Your task to perform on an android device: choose inbox layout in the gmail app Image 0: 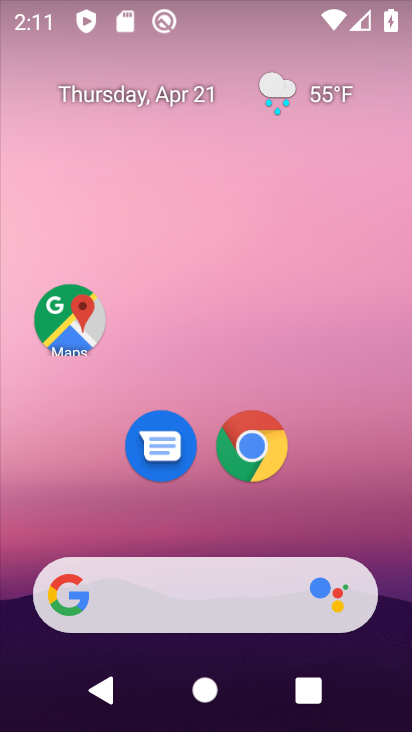
Step 0: drag from (212, 725) to (204, 123)
Your task to perform on an android device: choose inbox layout in the gmail app Image 1: 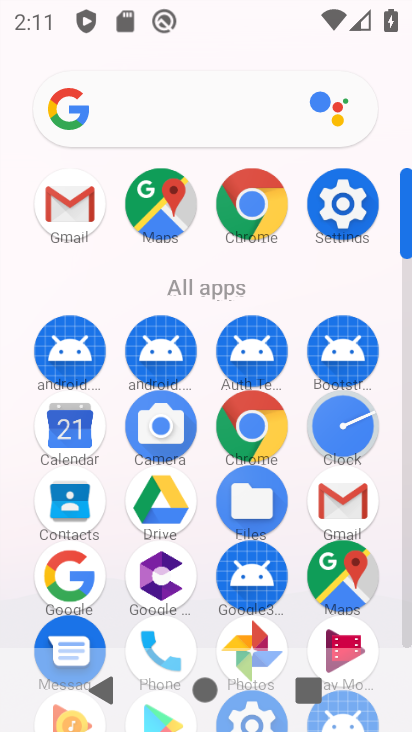
Step 1: click (64, 201)
Your task to perform on an android device: choose inbox layout in the gmail app Image 2: 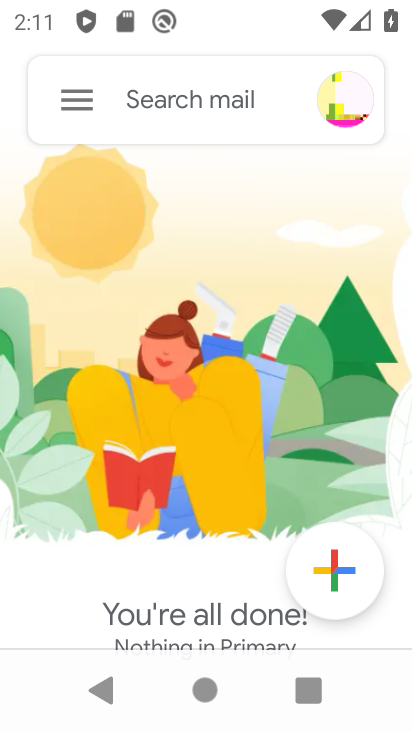
Step 2: click (83, 91)
Your task to perform on an android device: choose inbox layout in the gmail app Image 3: 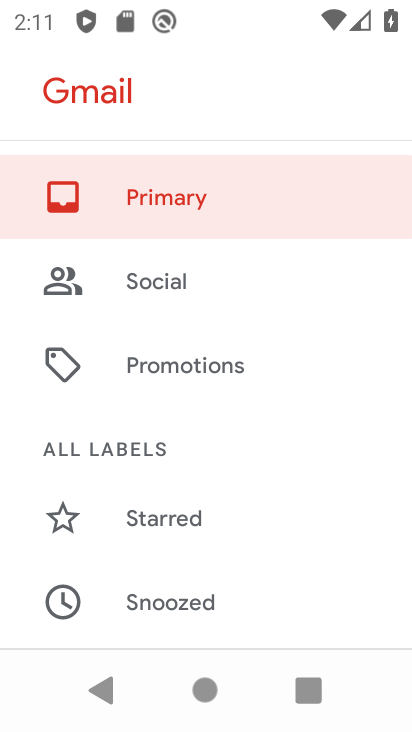
Step 3: drag from (194, 593) to (173, 303)
Your task to perform on an android device: choose inbox layout in the gmail app Image 4: 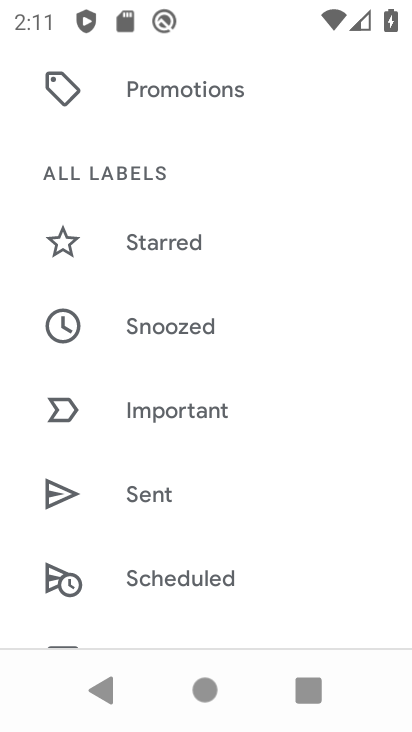
Step 4: drag from (223, 615) to (196, 229)
Your task to perform on an android device: choose inbox layout in the gmail app Image 5: 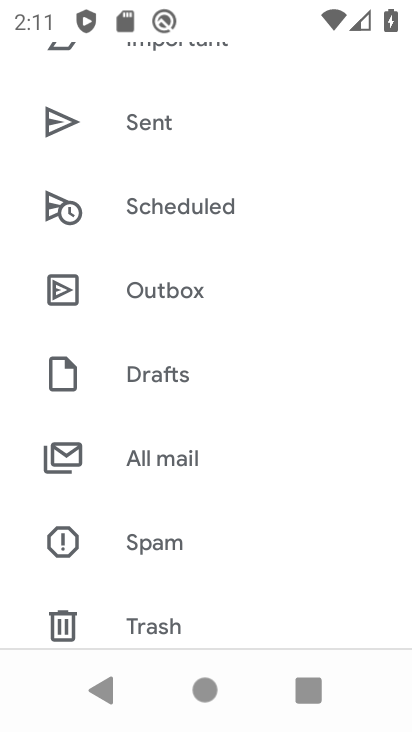
Step 5: drag from (201, 601) to (201, 215)
Your task to perform on an android device: choose inbox layout in the gmail app Image 6: 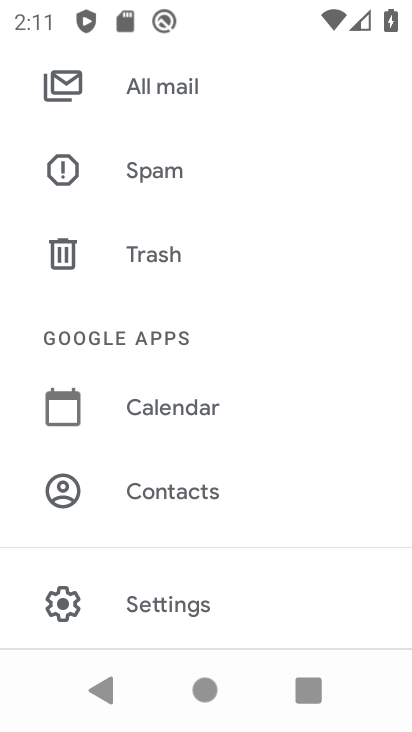
Step 6: click (180, 603)
Your task to perform on an android device: choose inbox layout in the gmail app Image 7: 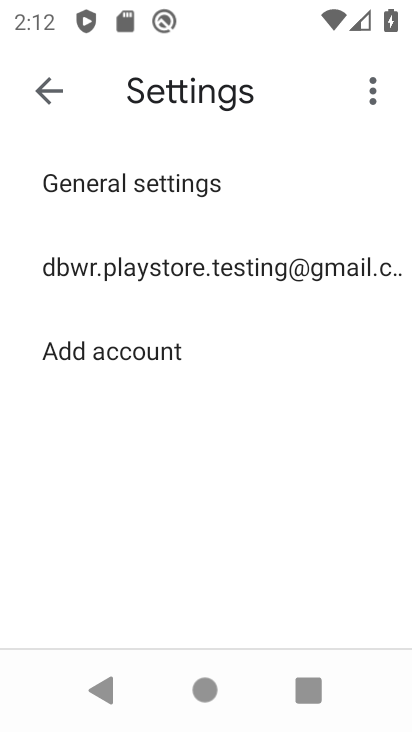
Step 7: click (184, 265)
Your task to perform on an android device: choose inbox layout in the gmail app Image 8: 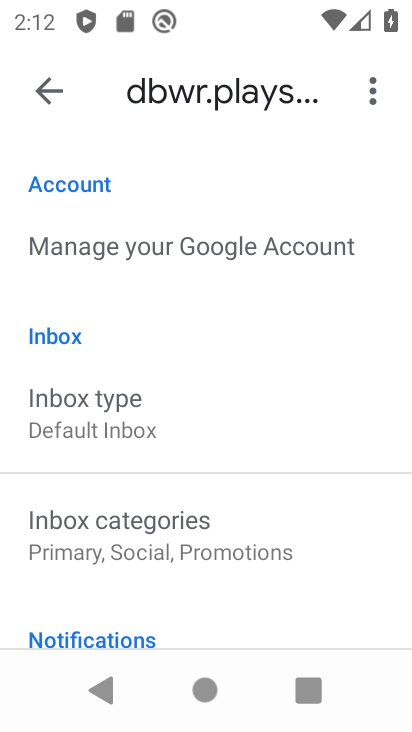
Step 8: drag from (172, 607) to (171, 424)
Your task to perform on an android device: choose inbox layout in the gmail app Image 9: 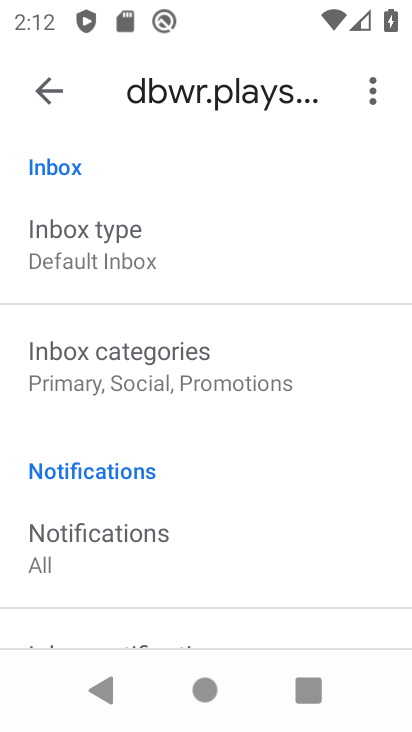
Step 9: click (112, 263)
Your task to perform on an android device: choose inbox layout in the gmail app Image 10: 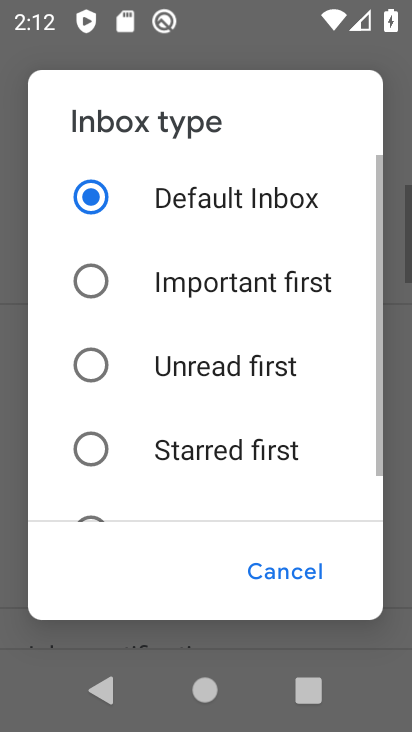
Step 10: click (89, 285)
Your task to perform on an android device: choose inbox layout in the gmail app Image 11: 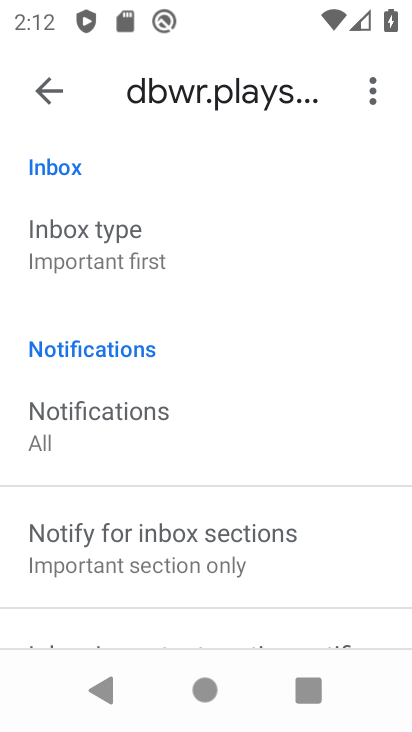
Step 11: task complete